Your task to perform on an android device: Go to Android settings Image 0: 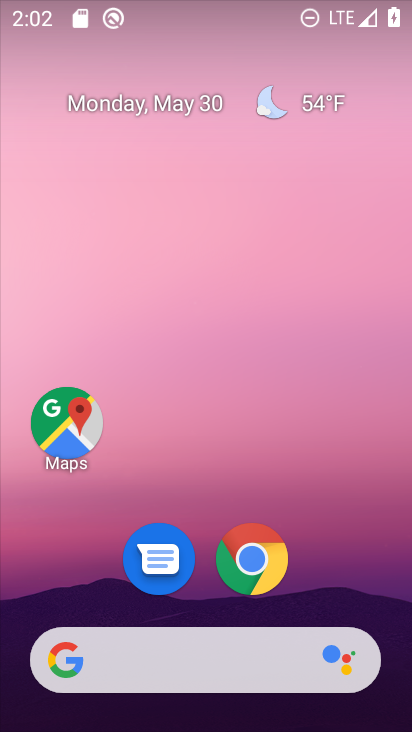
Step 0: drag from (326, 553) to (363, 15)
Your task to perform on an android device: Go to Android settings Image 1: 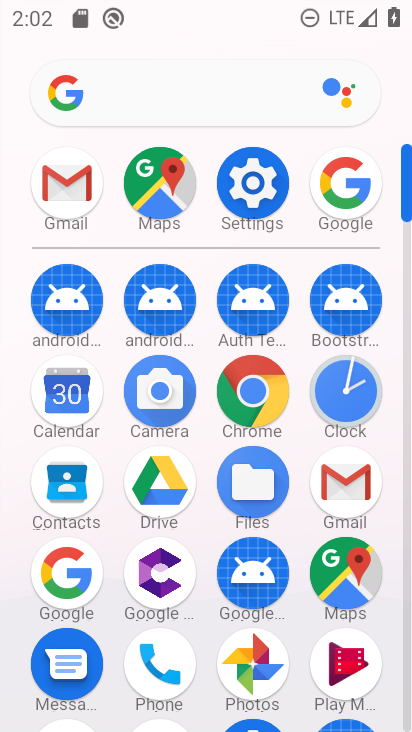
Step 1: click (247, 191)
Your task to perform on an android device: Go to Android settings Image 2: 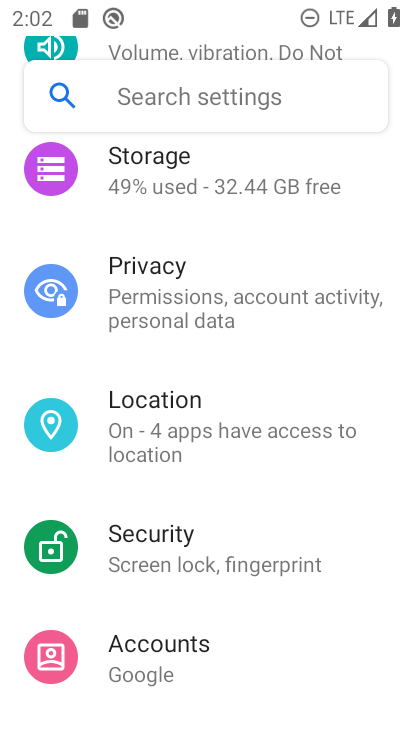
Step 2: drag from (239, 651) to (332, 204)
Your task to perform on an android device: Go to Android settings Image 3: 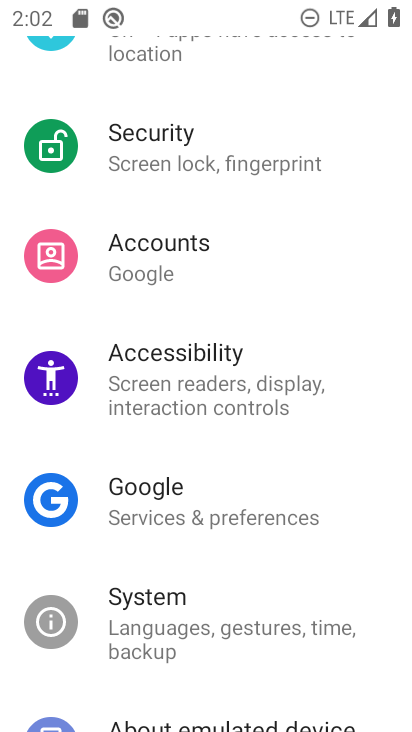
Step 3: click (185, 631)
Your task to perform on an android device: Go to Android settings Image 4: 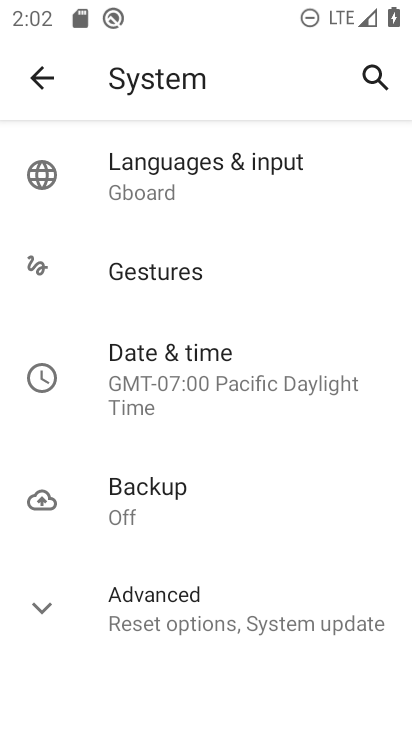
Step 4: task complete